Your task to perform on an android device: Open maps Image 0: 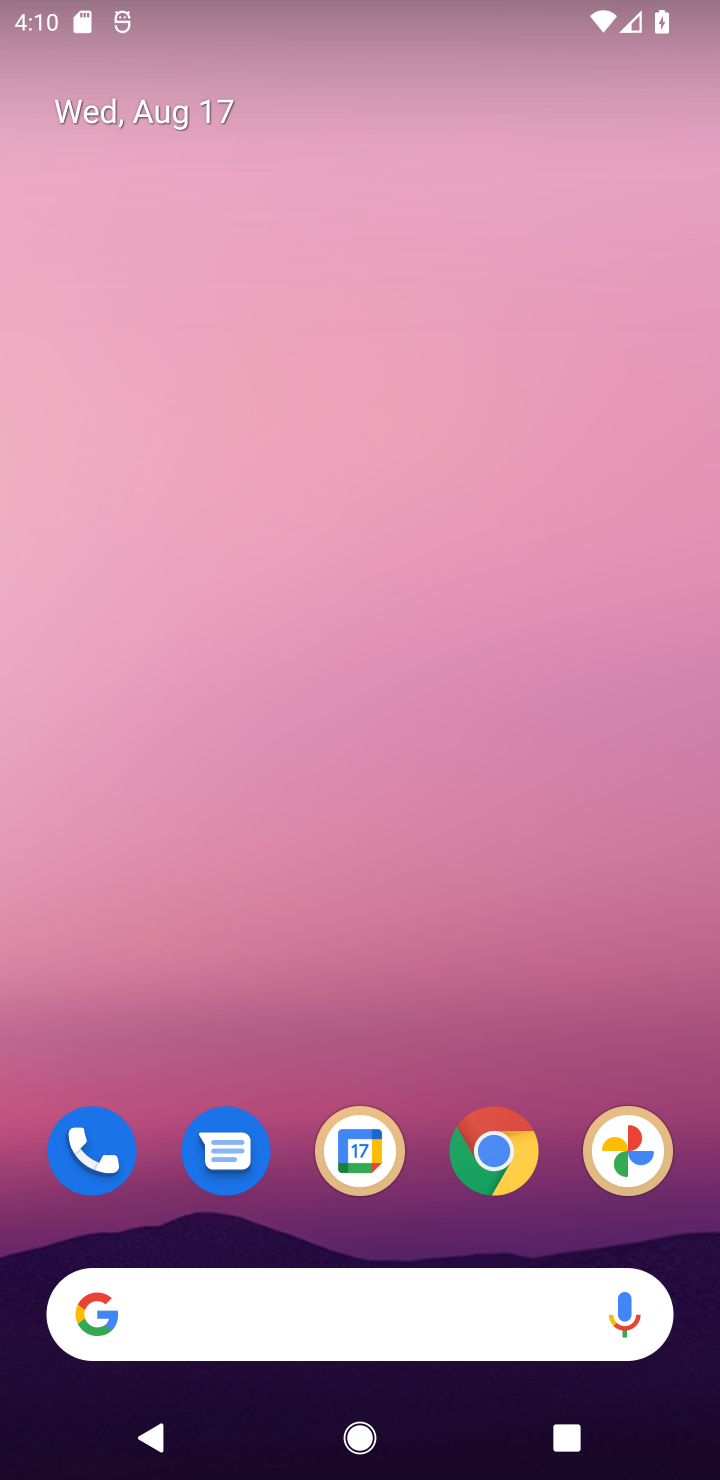
Step 0: drag from (566, 1219) to (364, 172)
Your task to perform on an android device: Open maps Image 1: 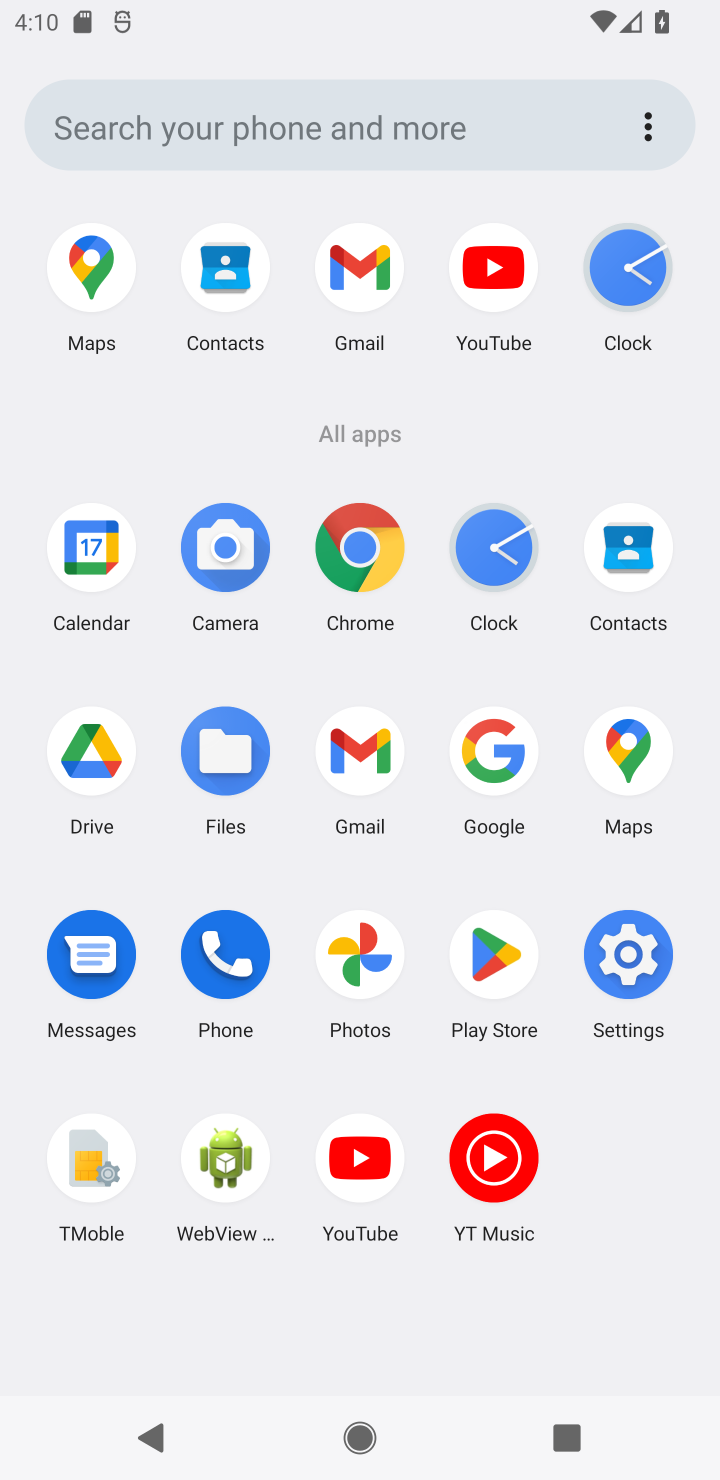
Step 1: click (59, 311)
Your task to perform on an android device: Open maps Image 2: 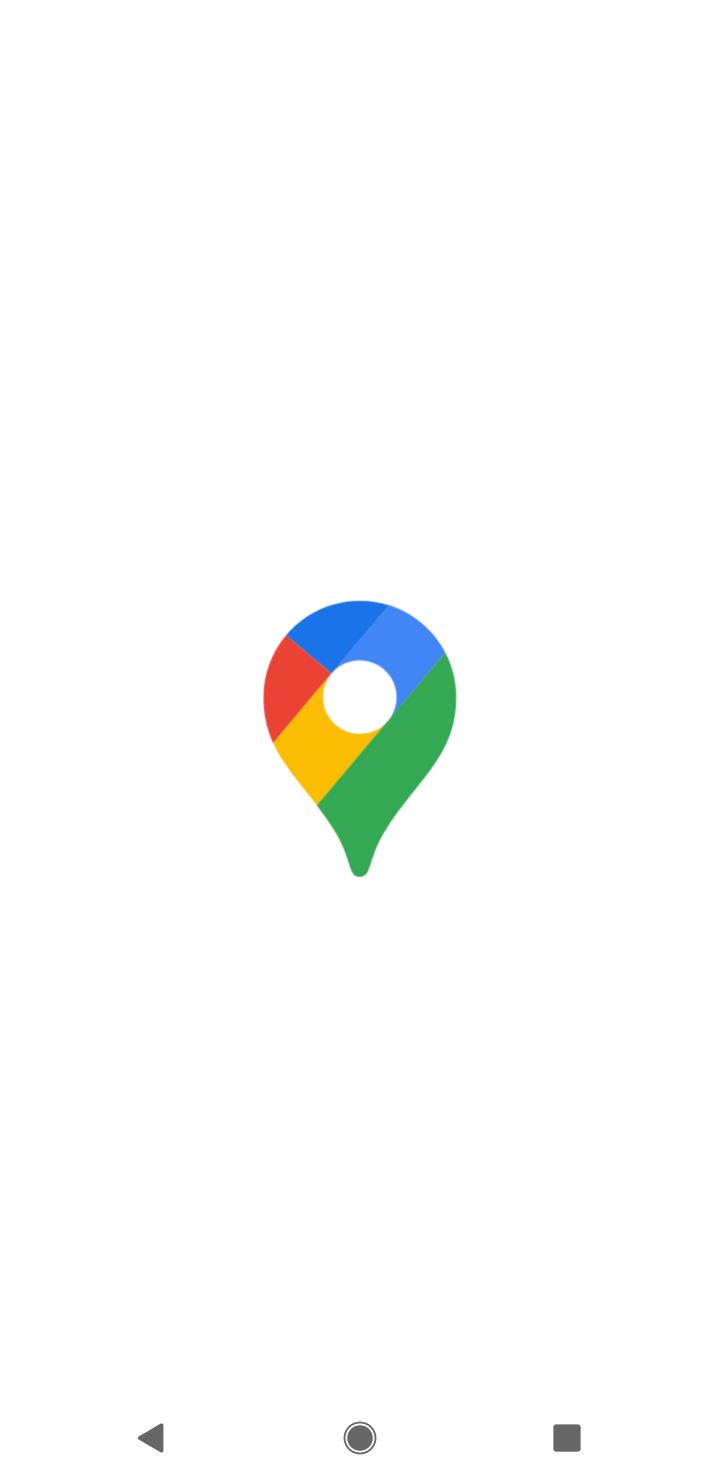
Step 2: task complete